Your task to perform on an android device: install app "LiveIn - Share Your Moment" Image 0: 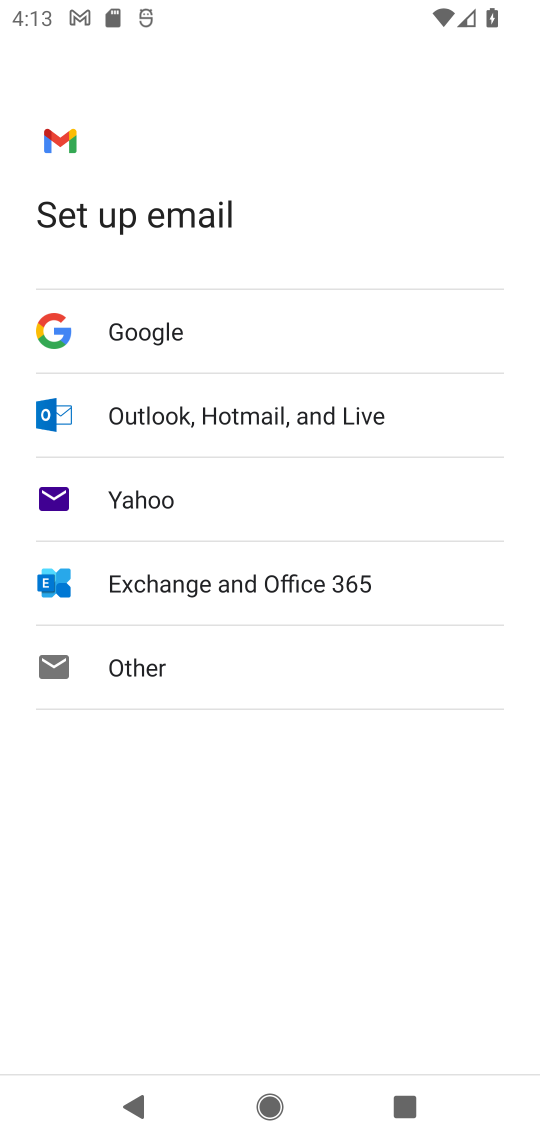
Step 0: press home button
Your task to perform on an android device: install app "LiveIn - Share Your Moment" Image 1: 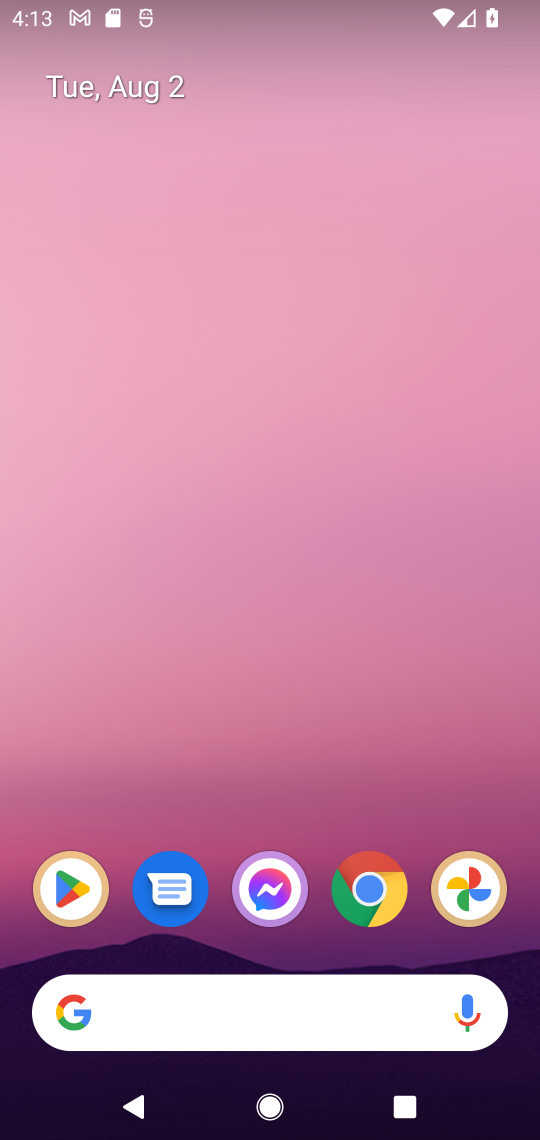
Step 1: drag from (344, 792) to (353, 110)
Your task to perform on an android device: install app "LiveIn - Share Your Moment" Image 2: 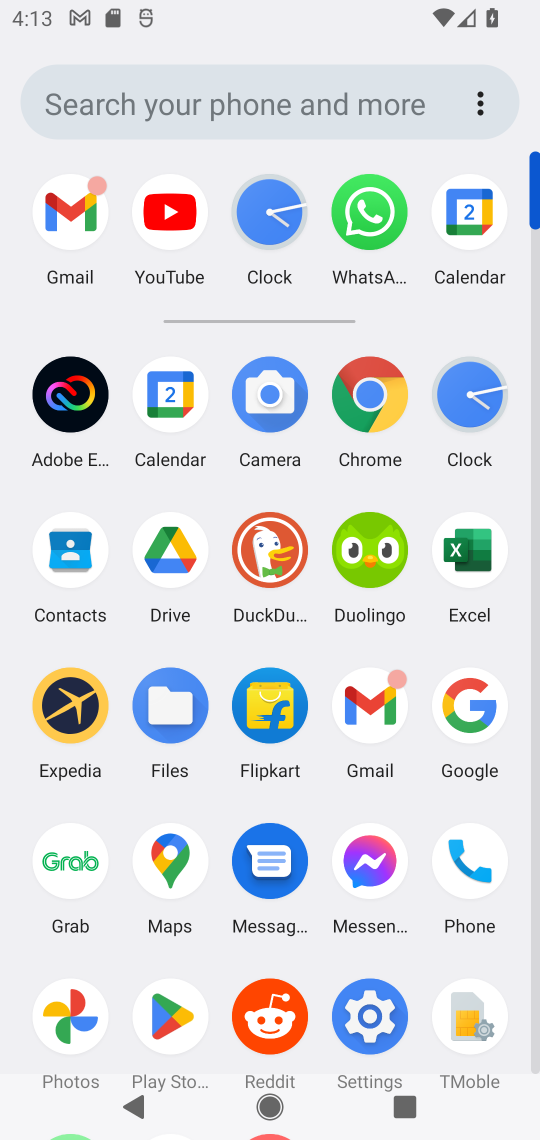
Step 2: click (164, 1031)
Your task to perform on an android device: install app "LiveIn - Share Your Moment" Image 3: 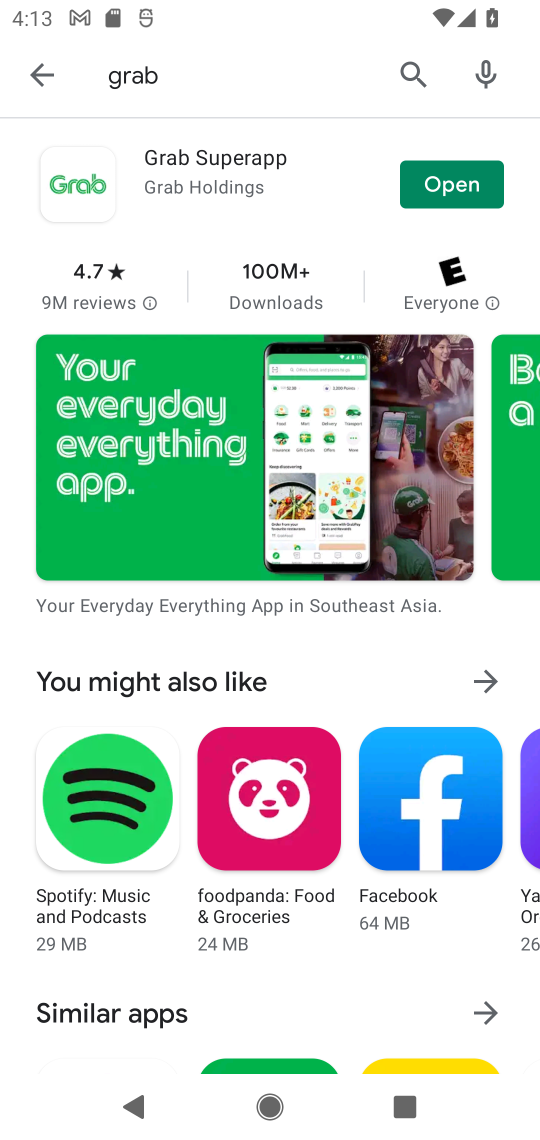
Step 3: click (409, 70)
Your task to perform on an android device: install app "LiveIn - Share Your Moment" Image 4: 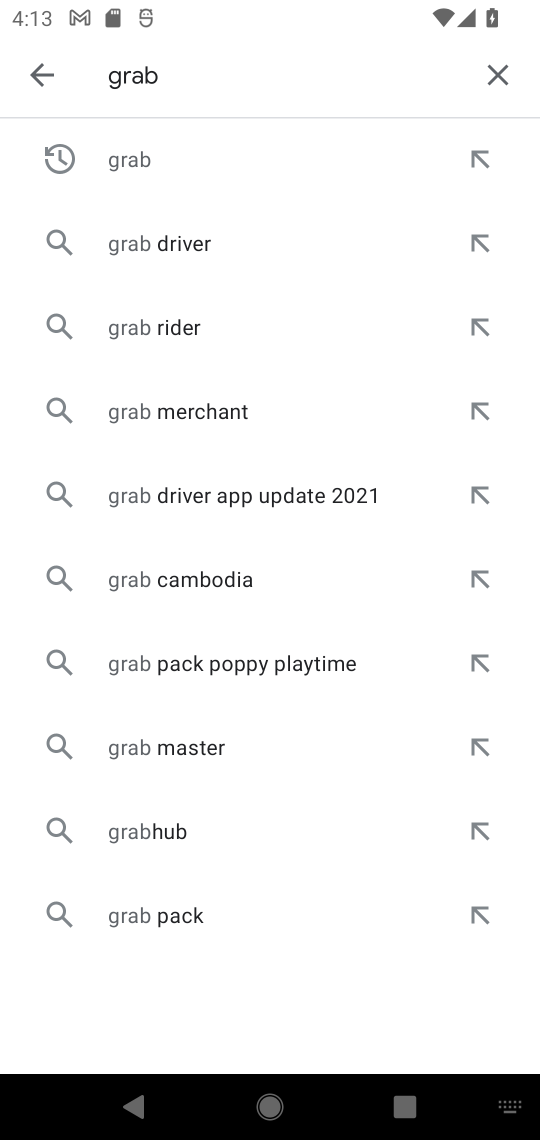
Step 4: click (496, 74)
Your task to perform on an android device: install app "LiveIn - Share Your Moment" Image 5: 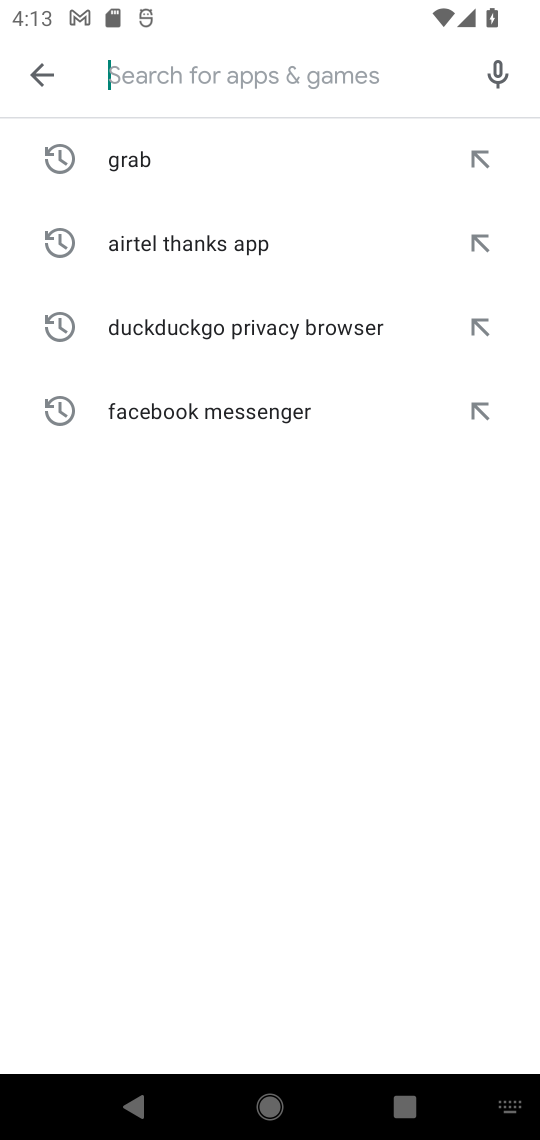
Step 5: type "livein share your moment"
Your task to perform on an android device: install app "LiveIn - Share Your Moment" Image 6: 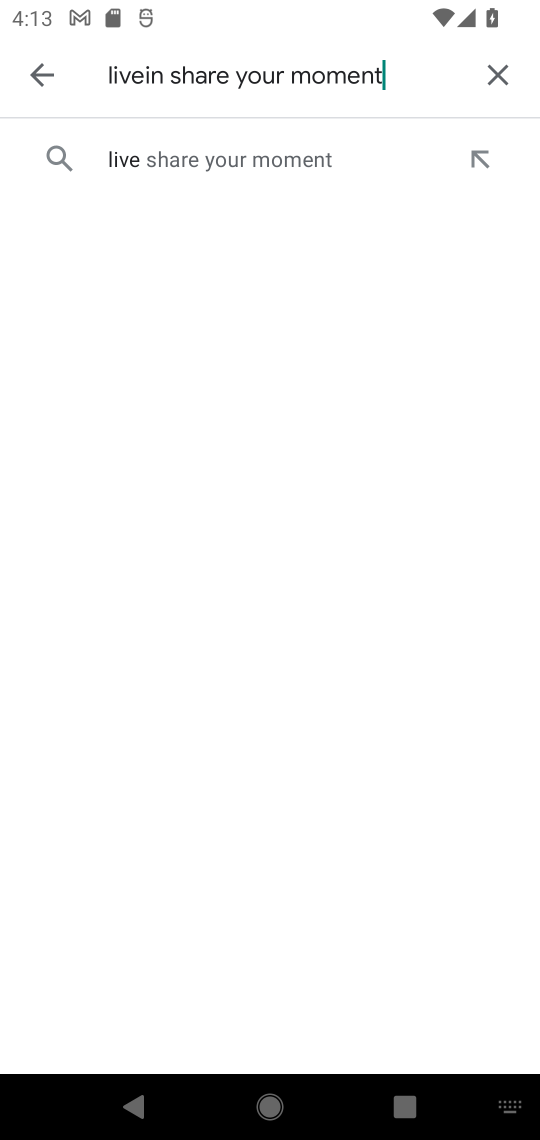
Step 6: task complete